Your task to perform on an android device: change text size in settings app Image 0: 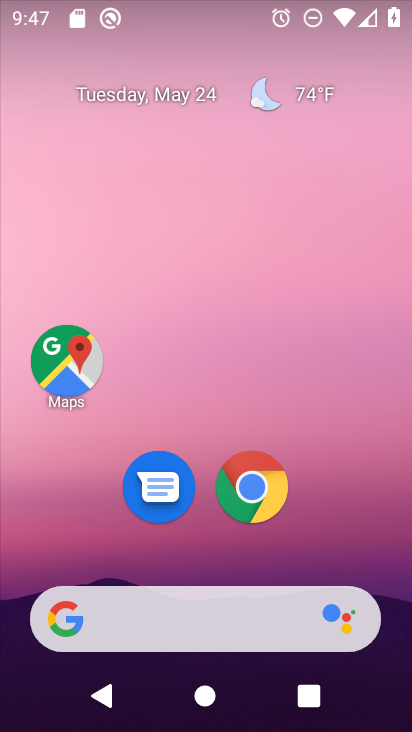
Step 0: drag from (349, 581) to (379, 23)
Your task to perform on an android device: change text size in settings app Image 1: 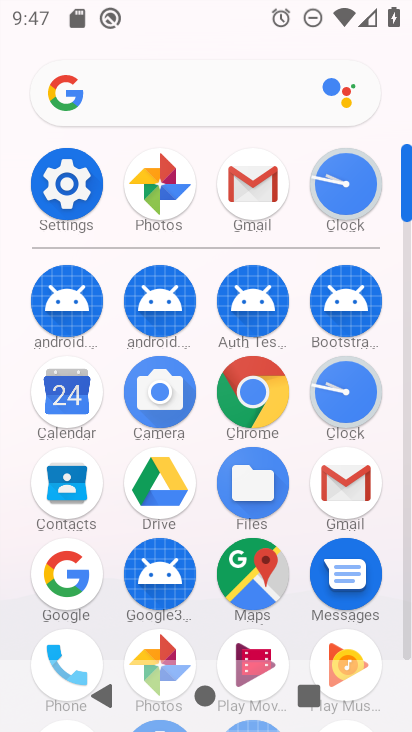
Step 1: click (70, 184)
Your task to perform on an android device: change text size in settings app Image 2: 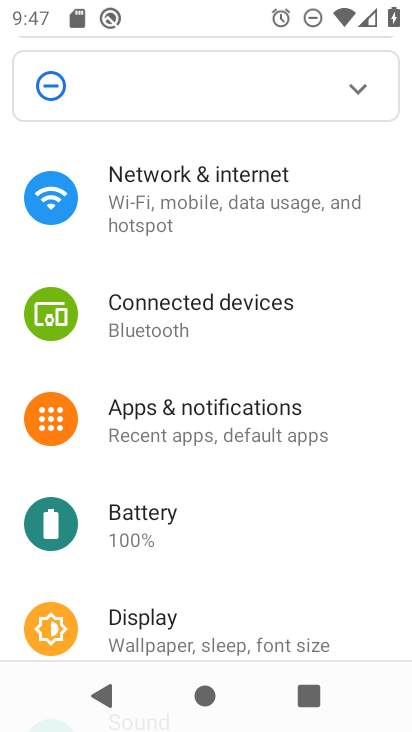
Step 2: click (142, 623)
Your task to perform on an android device: change text size in settings app Image 3: 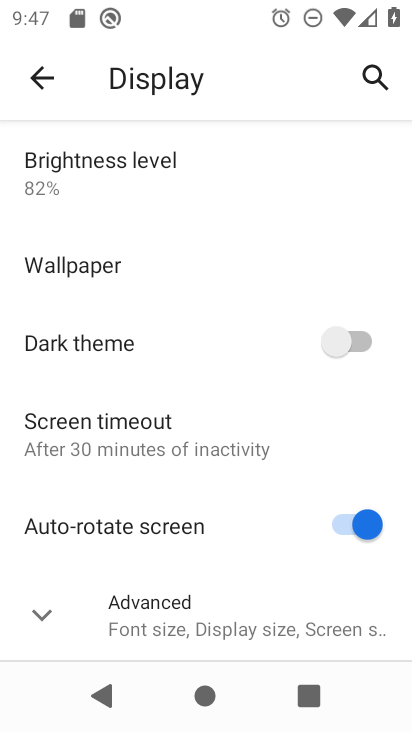
Step 3: click (39, 622)
Your task to perform on an android device: change text size in settings app Image 4: 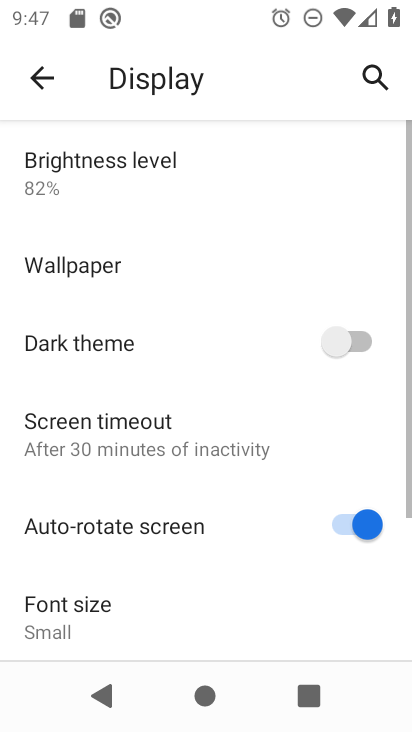
Step 4: drag from (192, 602) to (201, 375)
Your task to perform on an android device: change text size in settings app Image 5: 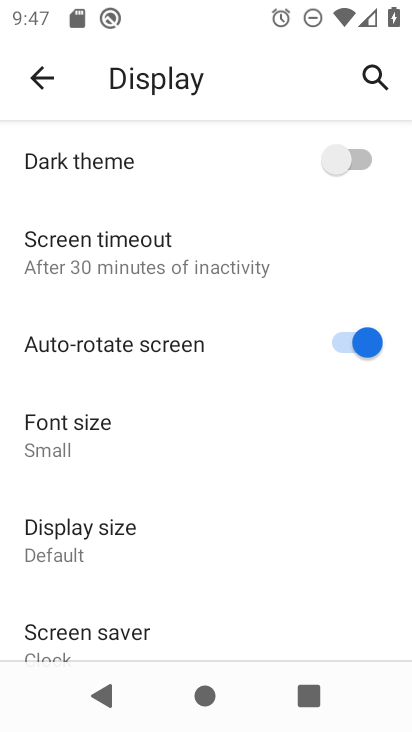
Step 5: click (69, 439)
Your task to perform on an android device: change text size in settings app Image 6: 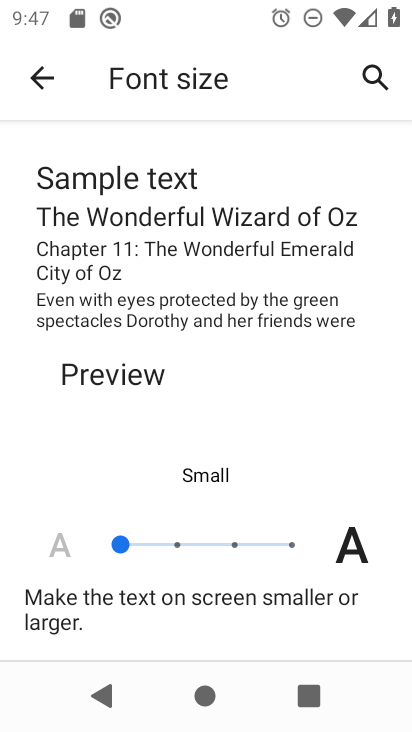
Step 6: click (167, 548)
Your task to perform on an android device: change text size in settings app Image 7: 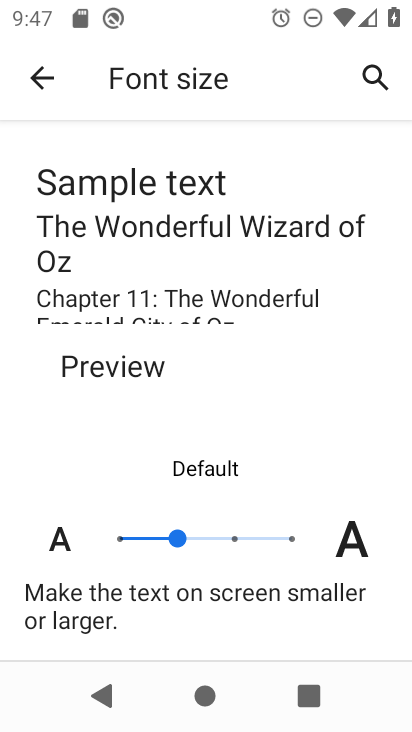
Step 7: task complete